Your task to perform on an android device: Go to ESPN.com Image 0: 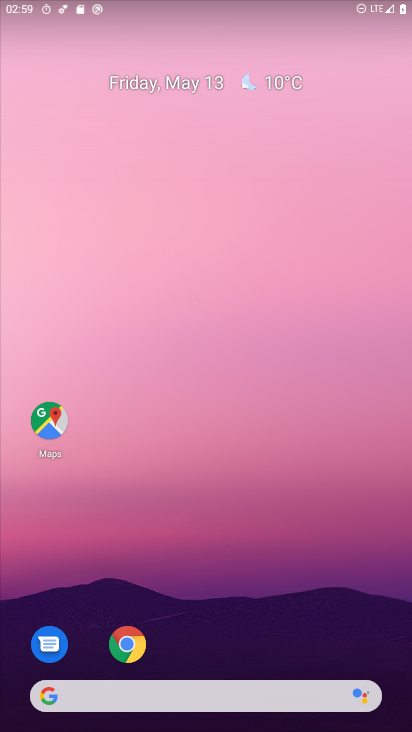
Step 0: drag from (238, 673) to (257, 65)
Your task to perform on an android device: Go to ESPN.com Image 1: 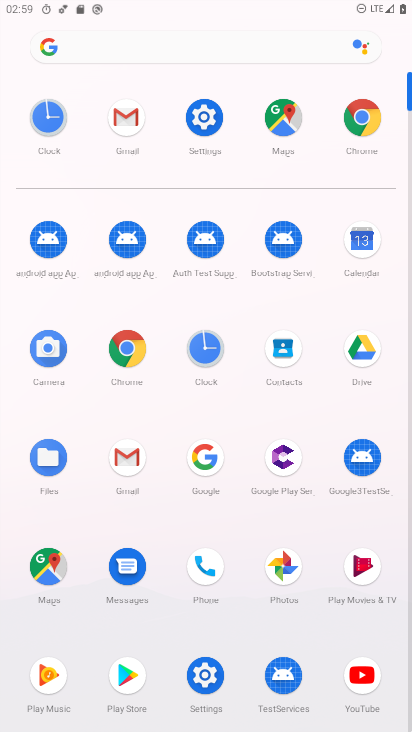
Step 1: click (142, 342)
Your task to perform on an android device: Go to ESPN.com Image 2: 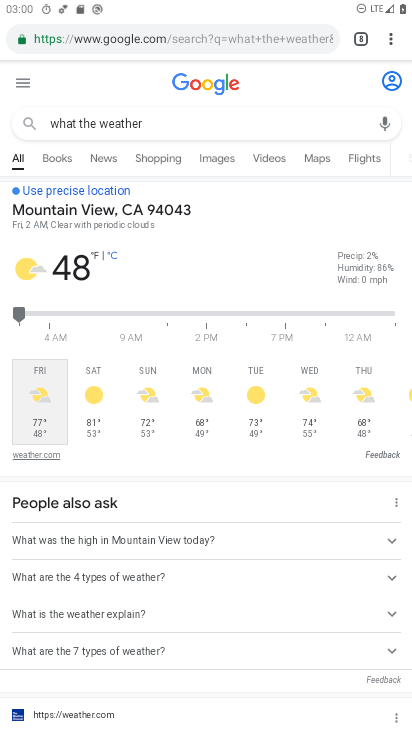
Step 2: click (244, 121)
Your task to perform on an android device: Go to ESPN.com Image 3: 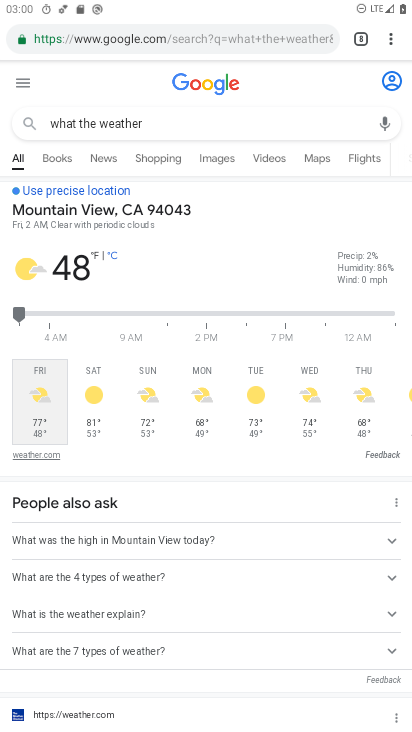
Step 3: click (244, 121)
Your task to perform on an android device: Go to ESPN.com Image 4: 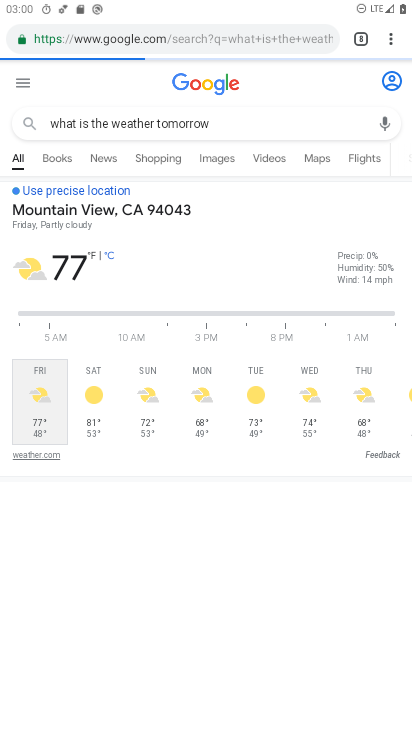
Step 4: click (267, 42)
Your task to perform on an android device: Go to ESPN.com Image 5: 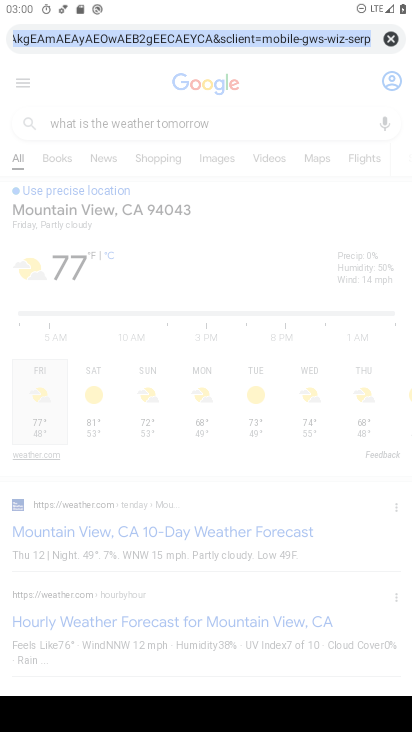
Step 5: click (391, 38)
Your task to perform on an android device: Go to ESPN.com Image 6: 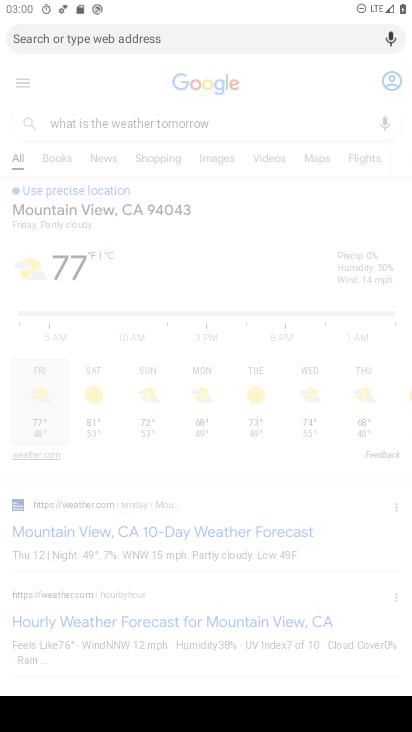
Step 6: type "espn.com"
Your task to perform on an android device: Go to ESPN.com Image 7: 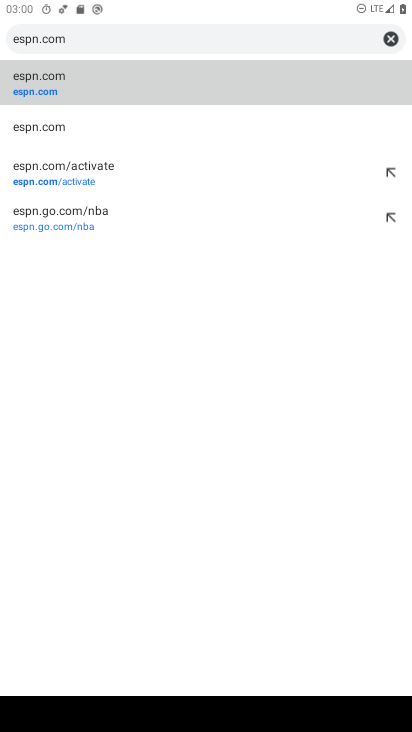
Step 7: click (116, 77)
Your task to perform on an android device: Go to ESPN.com Image 8: 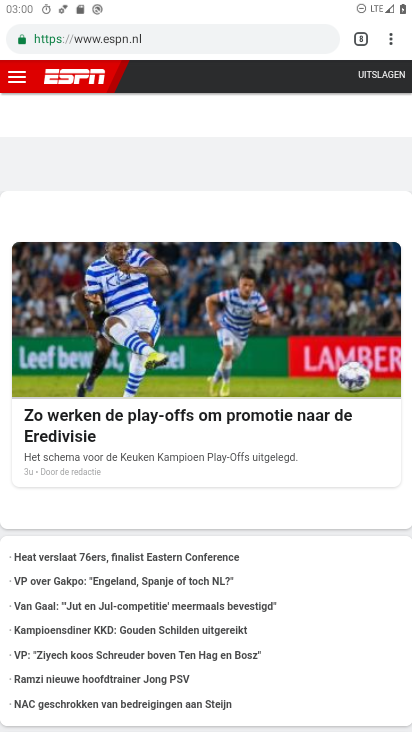
Step 8: task complete